Your task to perform on an android device: turn off javascript in the chrome app Image 0: 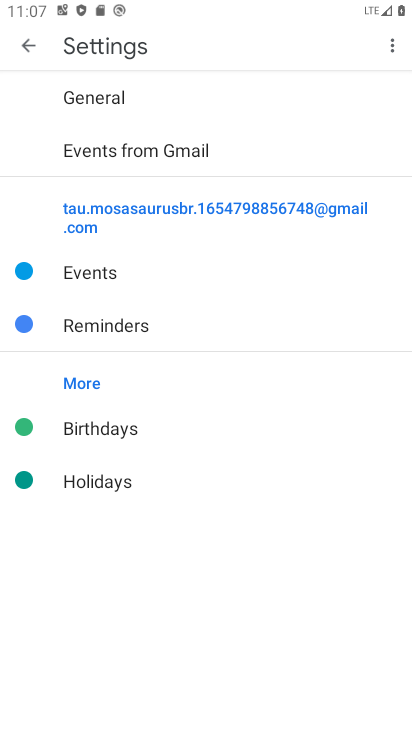
Step 0: press home button
Your task to perform on an android device: turn off javascript in the chrome app Image 1: 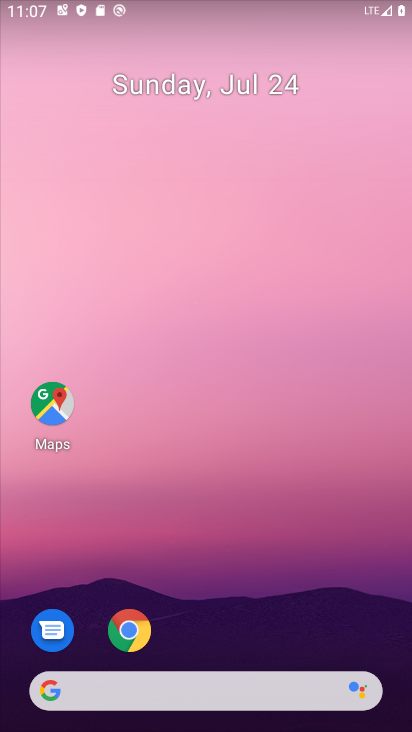
Step 1: click (149, 637)
Your task to perform on an android device: turn off javascript in the chrome app Image 2: 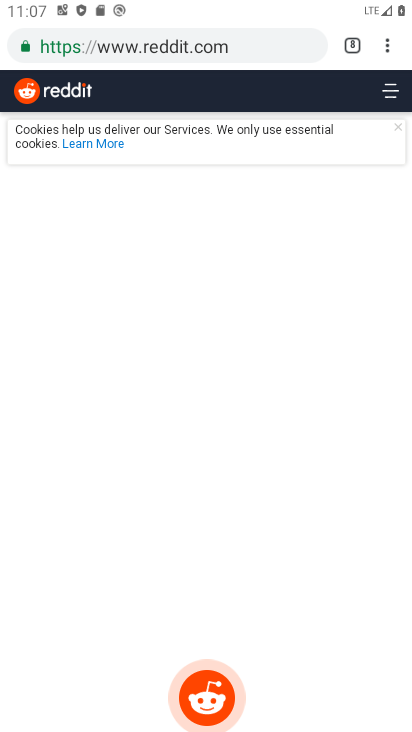
Step 2: click (385, 50)
Your task to perform on an android device: turn off javascript in the chrome app Image 3: 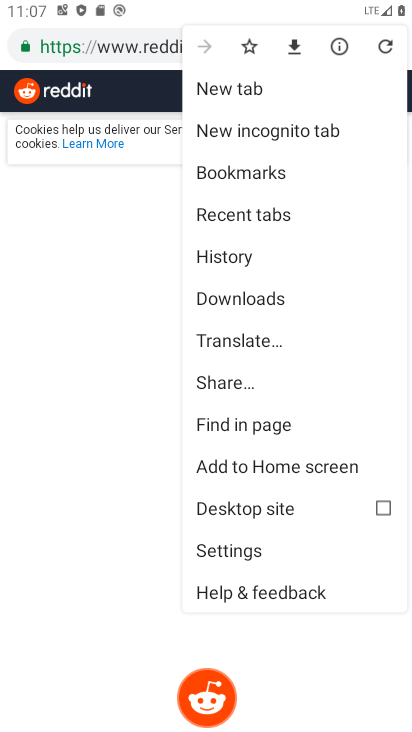
Step 3: click (264, 558)
Your task to perform on an android device: turn off javascript in the chrome app Image 4: 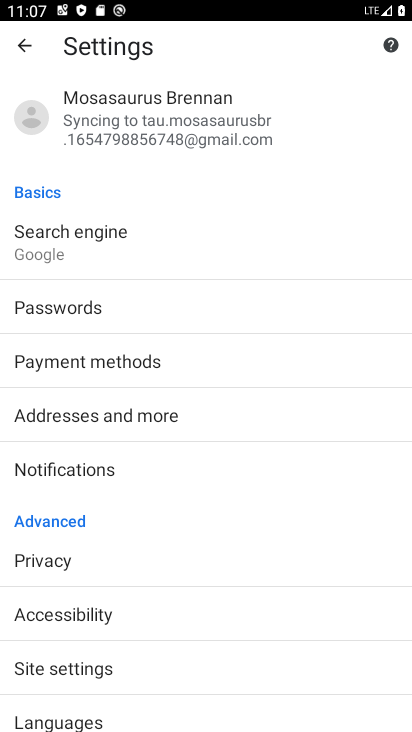
Step 4: drag from (164, 570) to (178, 294)
Your task to perform on an android device: turn off javascript in the chrome app Image 5: 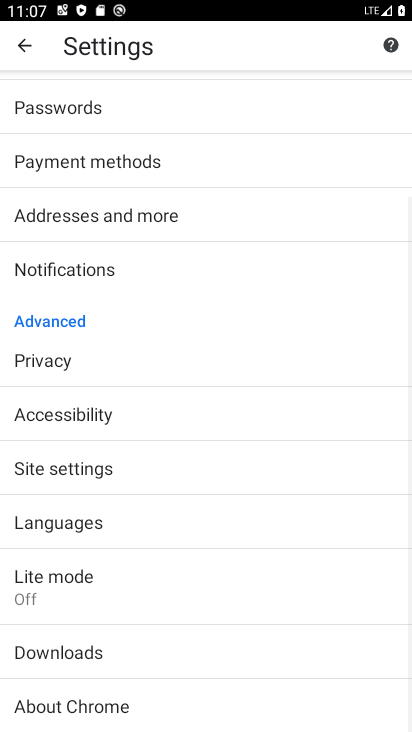
Step 5: drag from (141, 589) to (164, 266)
Your task to perform on an android device: turn off javascript in the chrome app Image 6: 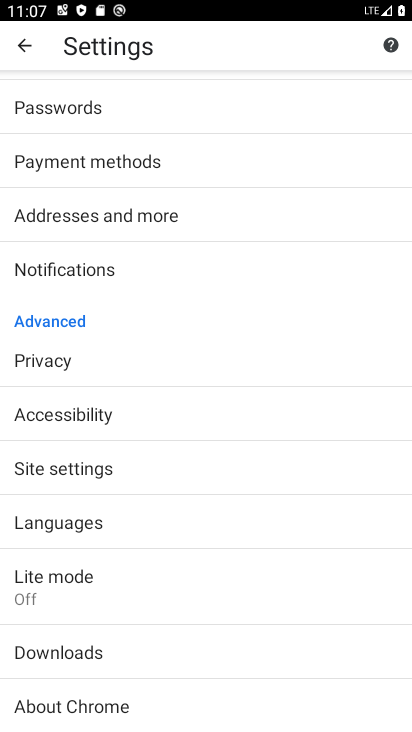
Step 6: click (129, 464)
Your task to perform on an android device: turn off javascript in the chrome app Image 7: 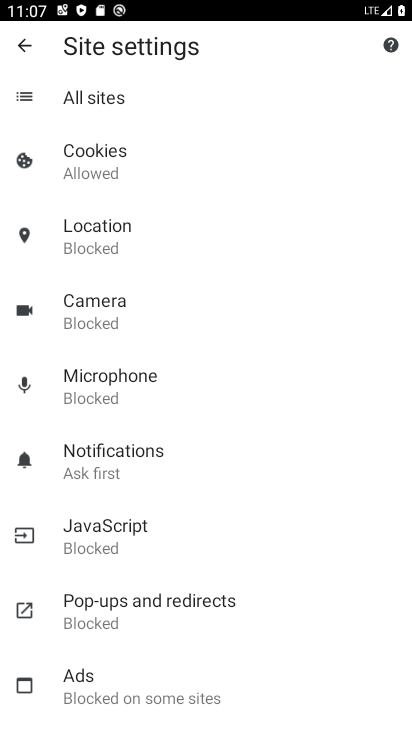
Step 7: click (154, 548)
Your task to perform on an android device: turn off javascript in the chrome app Image 8: 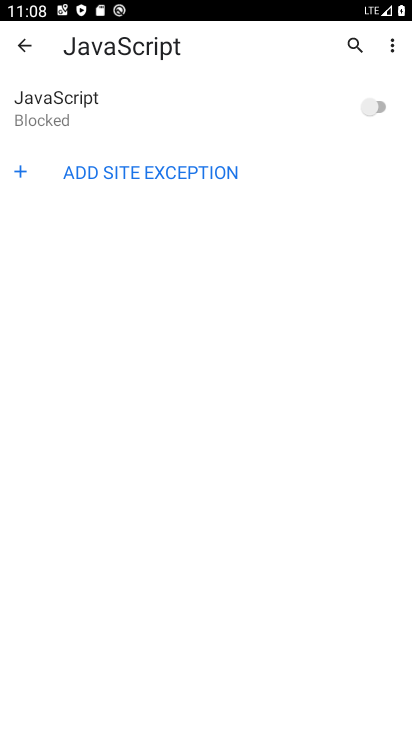
Step 8: task complete